Your task to perform on an android device: Open CNN.com Image 0: 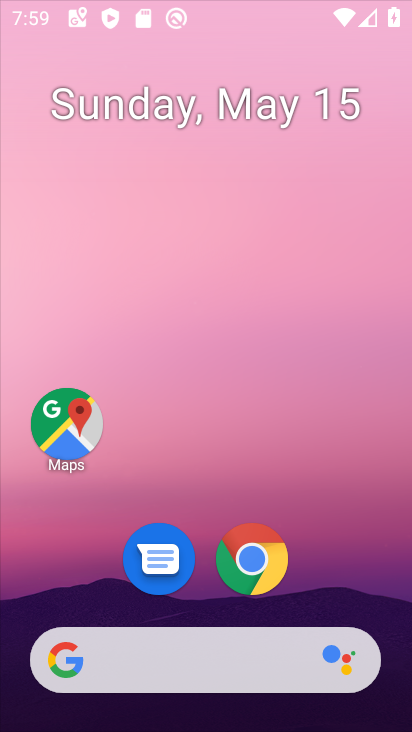
Step 0: drag from (352, 548) to (345, 385)
Your task to perform on an android device: Open CNN.com Image 1: 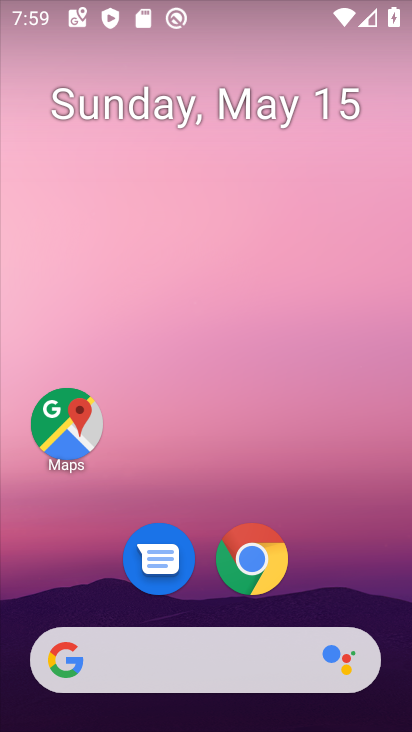
Step 1: click (273, 544)
Your task to perform on an android device: Open CNN.com Image 2: 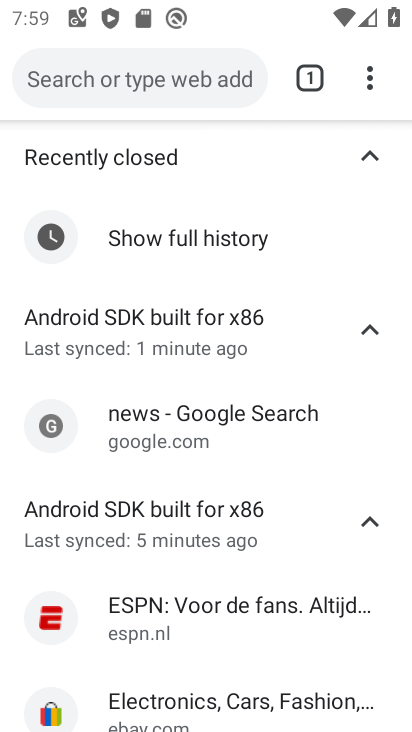
Step 2: click (183, 82)
Your task to perform on an android device: Open CNN.com Image 3: 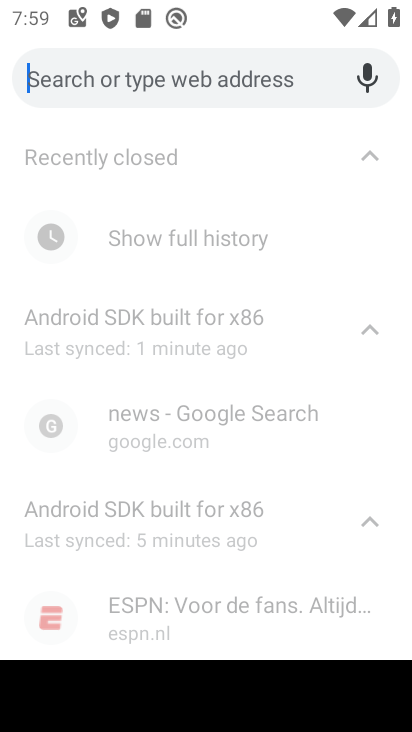
Step 3: type "cnn"
Your task to perform on an android device: Open CNN.com Image 4: 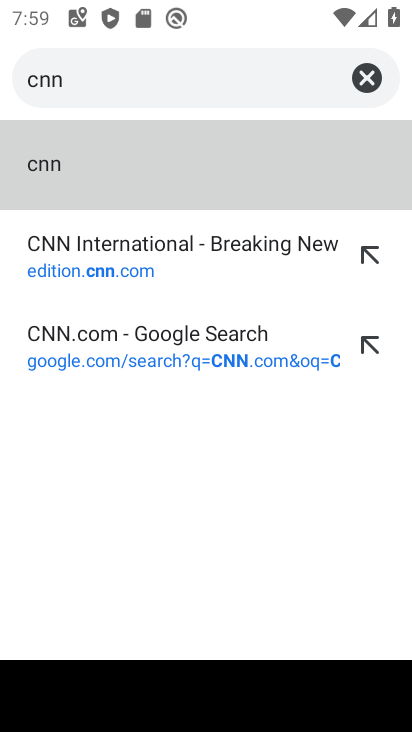
Step 4: click (217, 285)
Your task to perform on an android device: Open CNN.com Image 5: 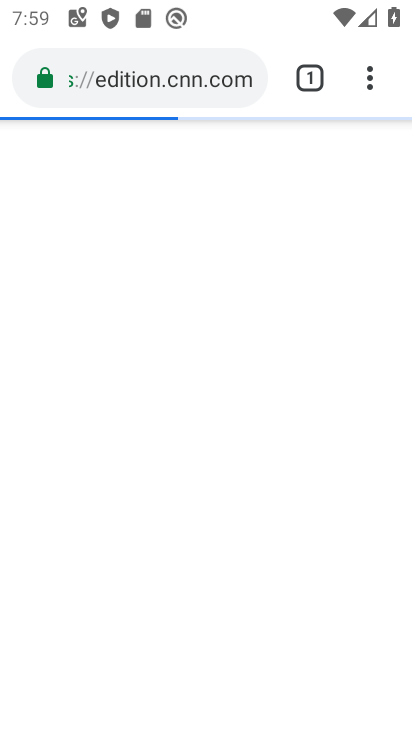
Step 5: task complete